Your task to perform on an android device: Open Chrome and go to settings Image 0: 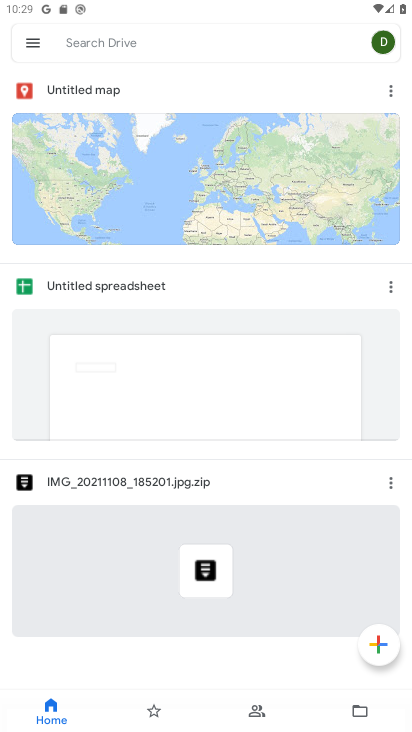
Step 0: press home button
Your task to perform on an android device: Open Chrome and go to settings Image 1: 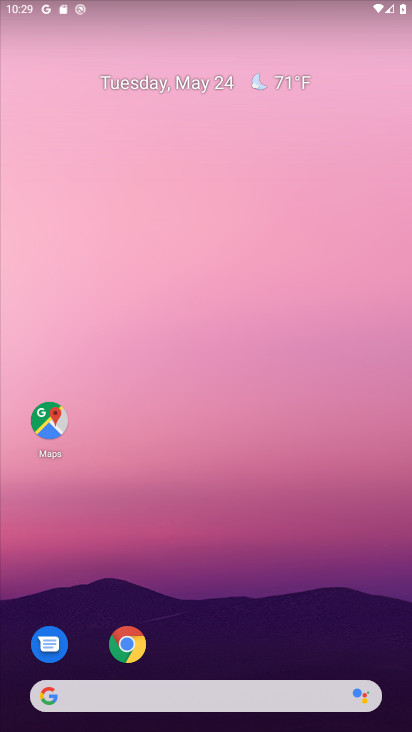
Step 1: click (139, 645)
Your task to perform on an android device: Open Chrome and go to settings Image 2: 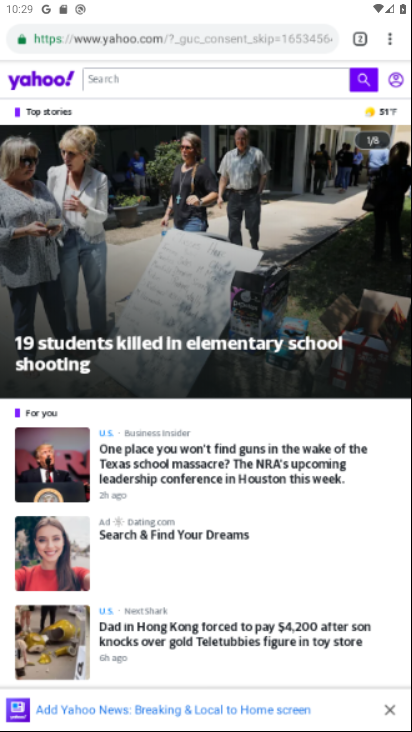
Step 2: click (139, 640)
Your task to perform on an android device: Open Chrome and go to settings Image 3: 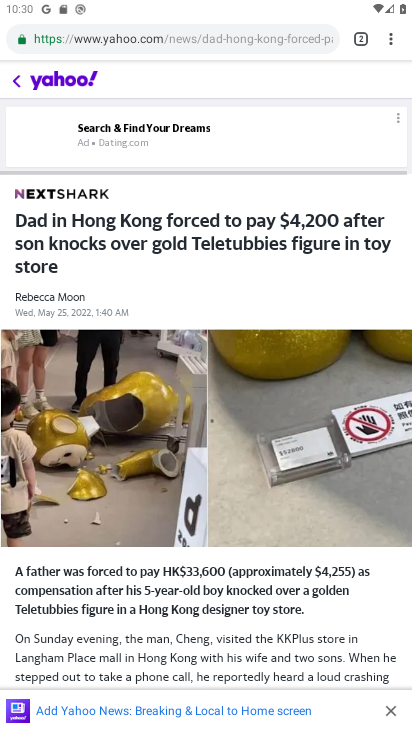
Step 3: click (392, 43)
Your task to perform on an android device: Open Chrome and go to settings Image 4: 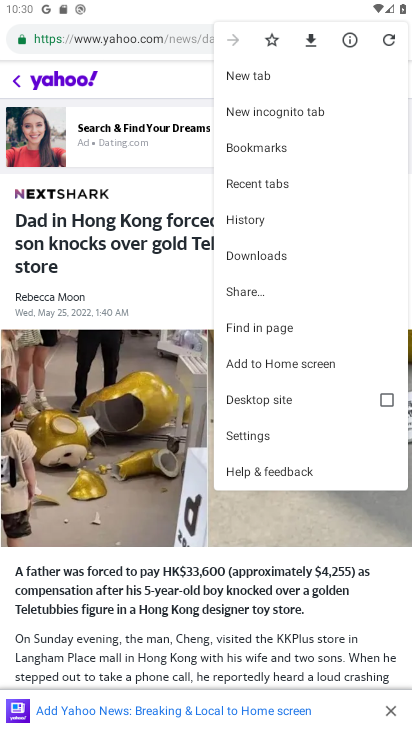
Step 4: click (255, 428)
Your task to perform on an android device: Open Chrome and go to settings Image 5: 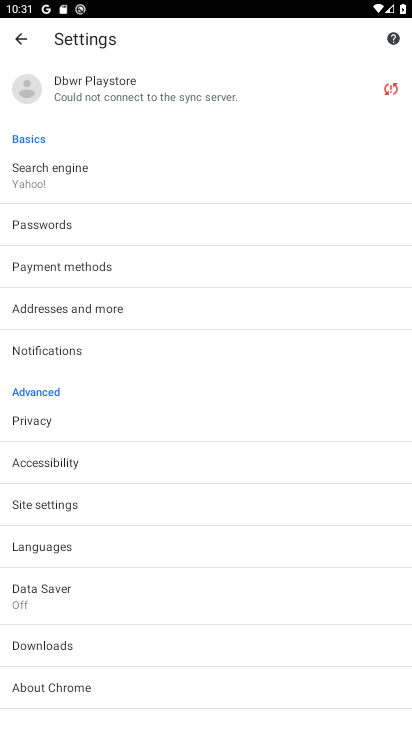
Step 5: task complete